Your task to perform on an android device: Open the calendar app, open the side menu, and click the "Day" option Image 0: 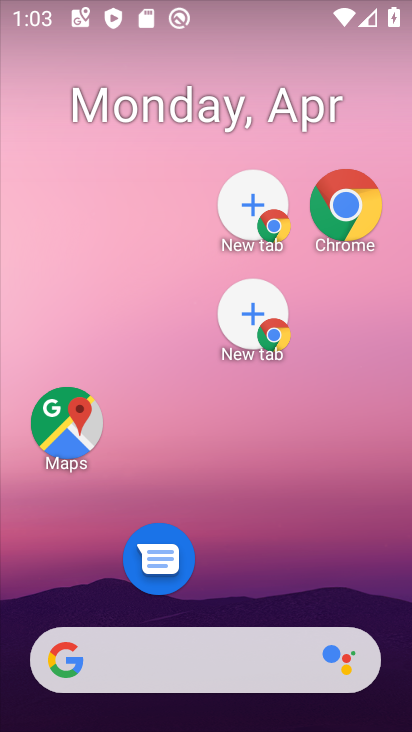
Step 0: drag from (29, 271) to (59, 128)
Your task to perform on an android device: Open the calendar app, open the side menu, and click the "Day" option Image 1: 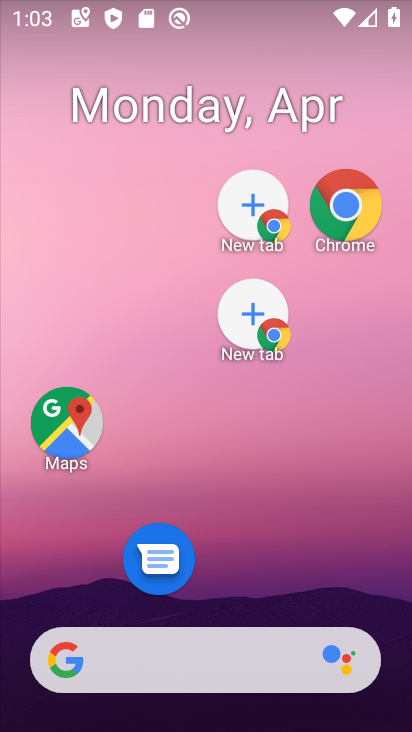
Step 1: drag from (20, 511) to (110, 191)
Your task to perform on an android device: Open the calendar app, open the side menu, and click the "Day" option Image 2: 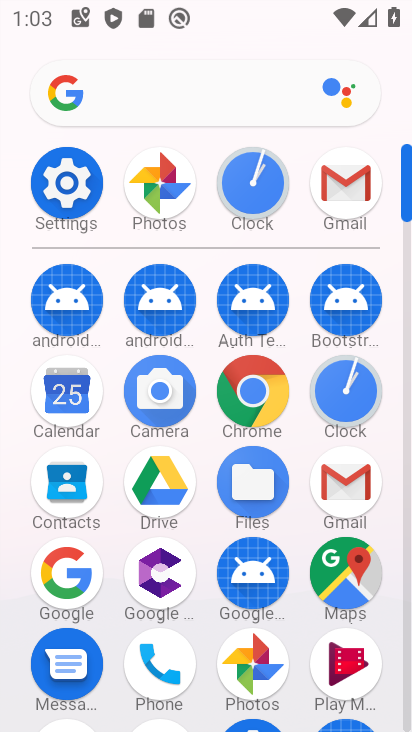
Step 2: click (64, 409)
Your task to perform on an android device: Open the calendar app, open the side menu, and click the "Day" option Image 3: 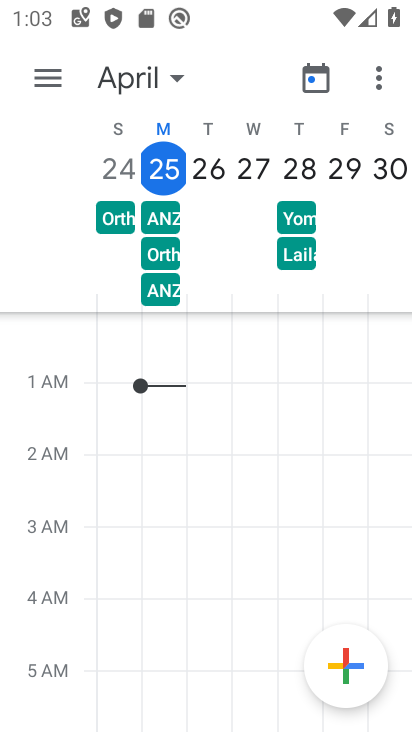
Step 3: click (57, 78)
Your task to perform on an android device: Open the calendar app, open the side menu, and click the "Day" option Image 4: 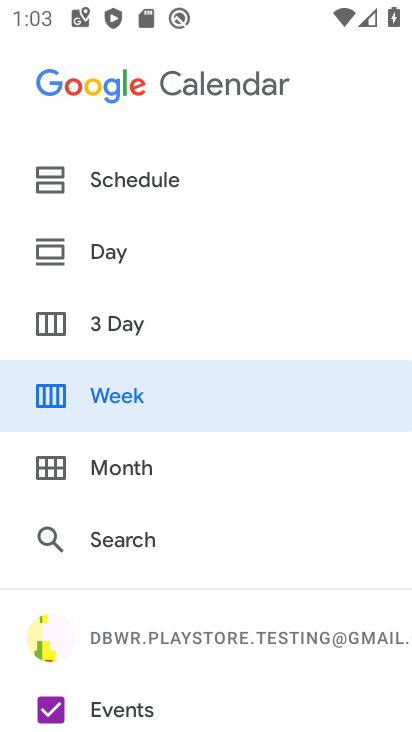
Step 4: click (157, 242)
Your task to perform on an android device: Open the calendar app, open the side menu, and click the "Day" option Image 5: 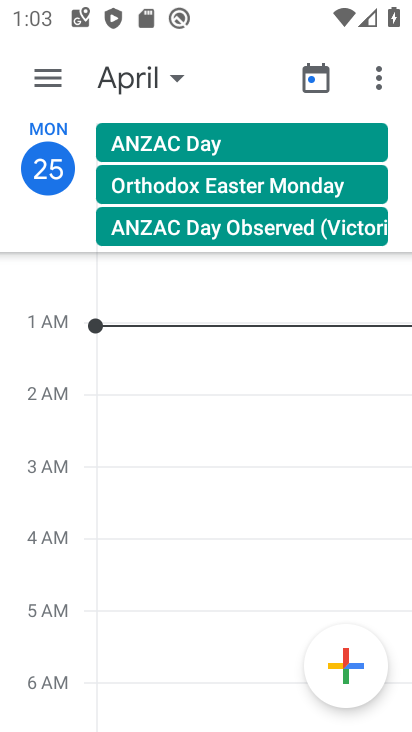
Step 5: task complete